Your task to perform on an android device: turn off sleep mode Image 0: 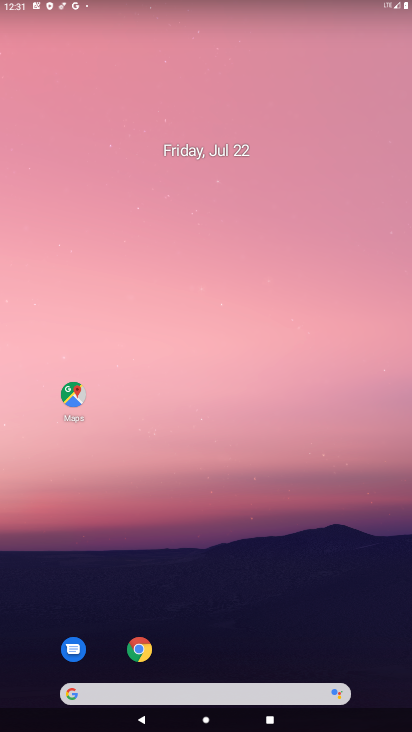
Step 0: drag from (221, 678) to (195, 276)
Your task to perform on an android device: turn off sleep mode Image 1: 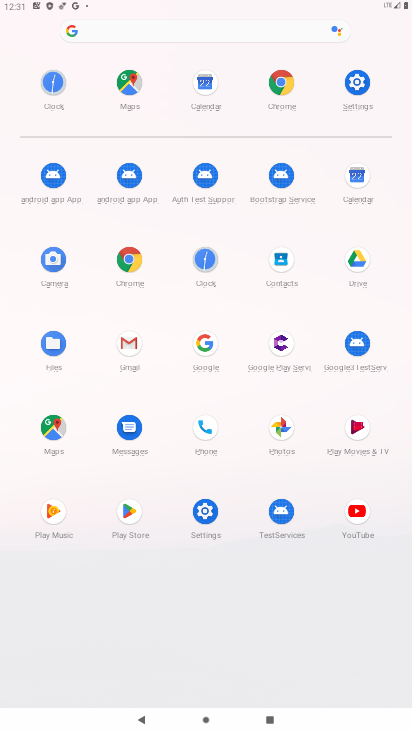
Step 1: click (358, 83)
Your task to perform on an android device: turn off sleep mode Image 2: 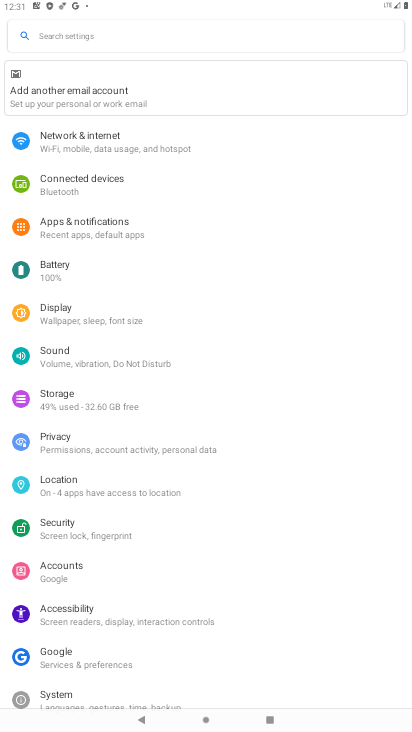
Step 2: click (104, 318)
Your task to perform on an android device: turn off sleep mode Image 3: 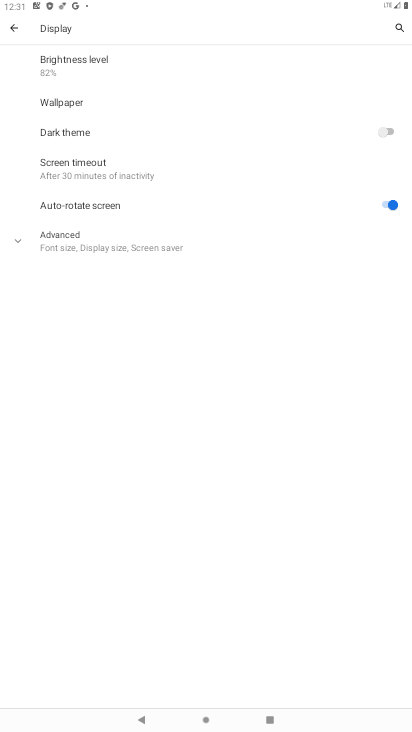
Step 3: task complete